Your task to perform on an android device: Do I have any events tomorrow? Image 0: 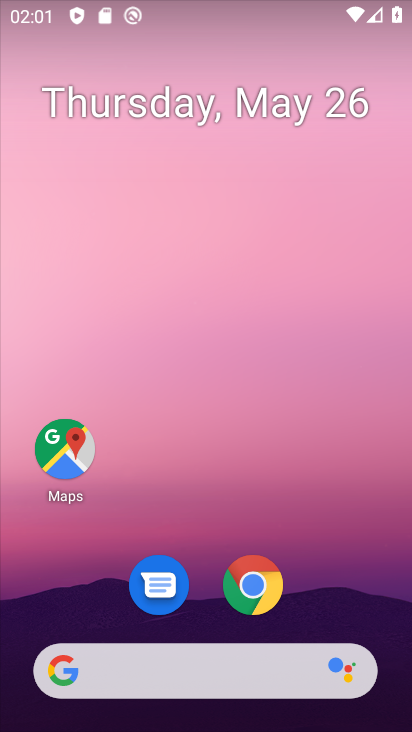
Step 0: drag from (231, 512) to (274, 22)
Your task to perform on an android device: Do I have any events tomorrow? Image 1: 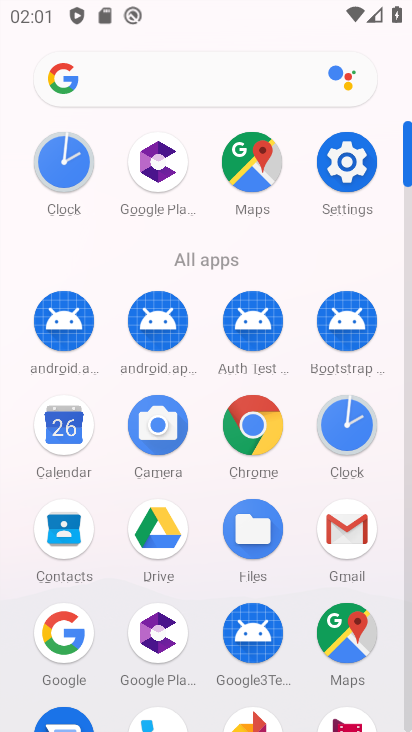
Step 1: click (77, 428)
Your task to perform on an android device: Do I have any events tomorrow? Image 2: 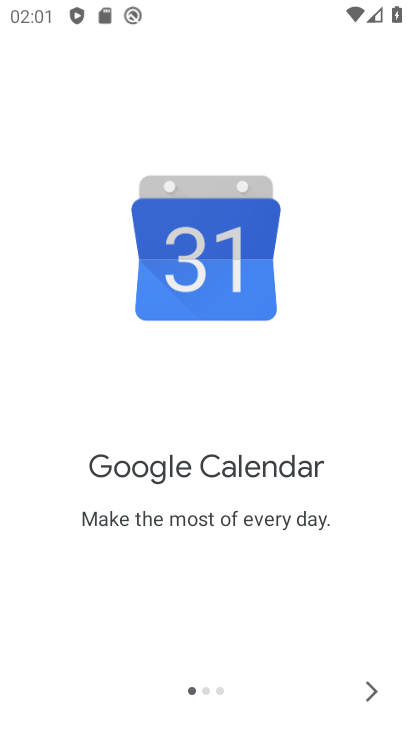
Step 2: click (367, 680)
Your task to perform on an android device: Do I have any events tomorrow? Image 3: 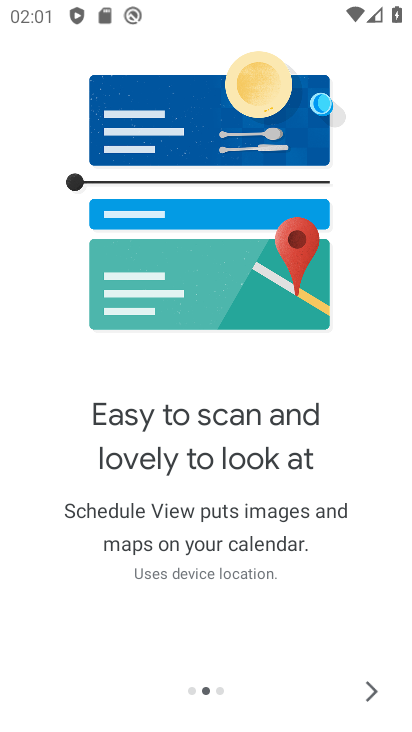
Step 3: click (367, 685)
Your task to perform on an android device: Do I have any events tomorrow? Image 4: 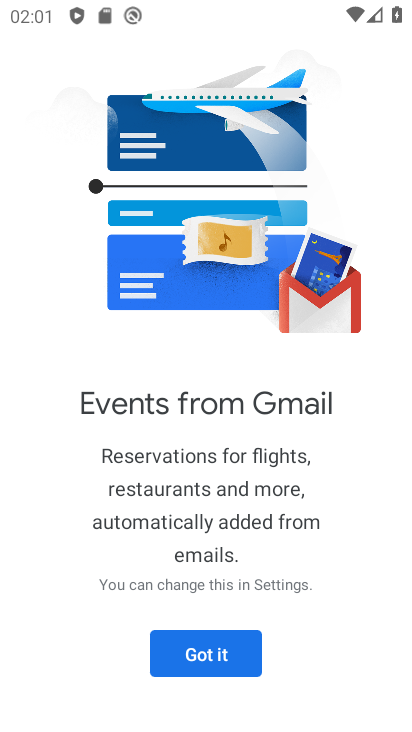
Step 4: click (244, 655)
Your task to perform on an android device: Do I have any events tomorrow? Image 5: 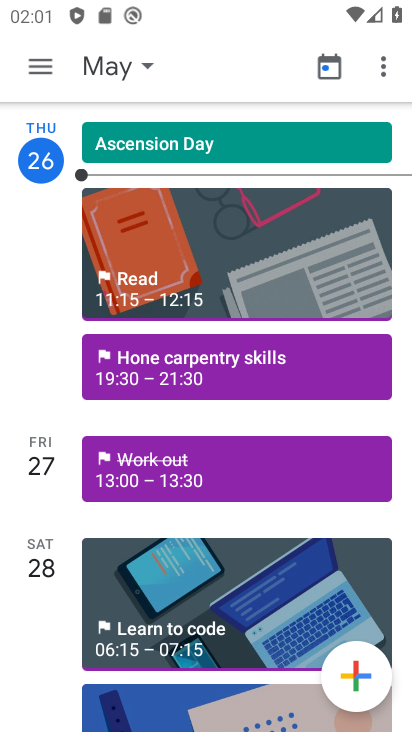
Step 5: task complete